Your task to perform on an android device: Open Google Image 0: 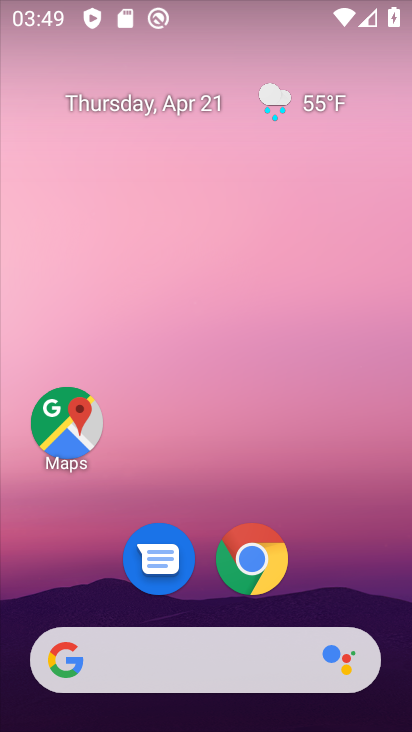
Step 0: drag from (388, 531) to (288, 6)
Your task to perform on an android device: Open Google Image 1: 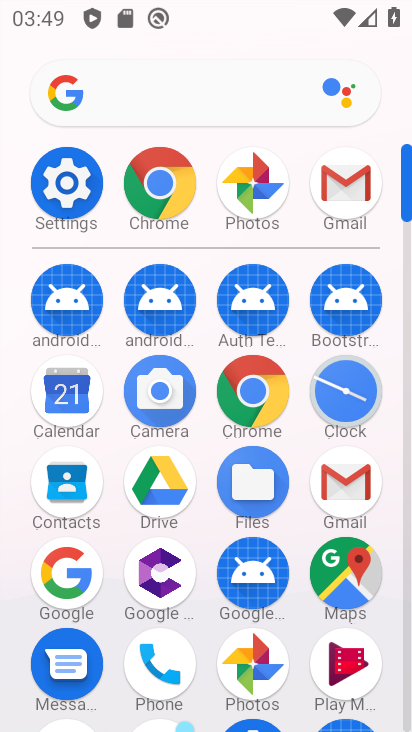
Step 1: click (72, 565)
Your task to perform on an android device: Open Google Image 2: 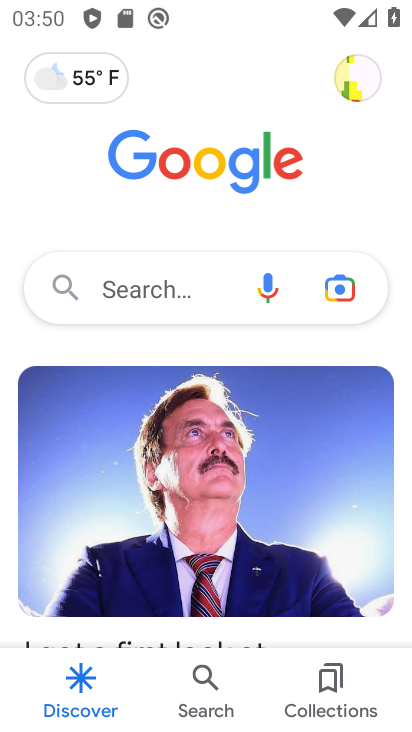
Step 2: task complete